Your task to perform on an android device: toggle data saver in the chrome app Image 0: 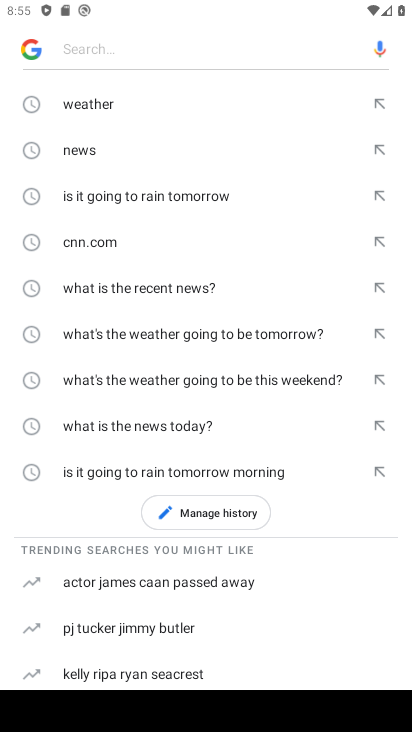
Step 0: press home button
Your task to perform on an android device: toggle data saver in the chrome app Image 1: 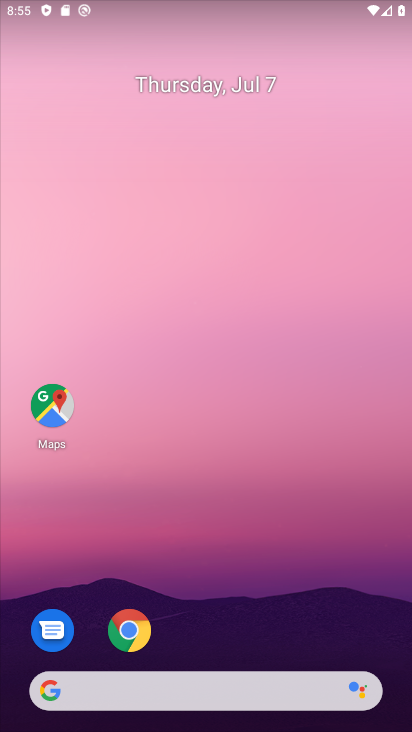
Step 1: click (132, 617)
Your task to perform on an android device: toggle data saver in the chrome app Image 2: 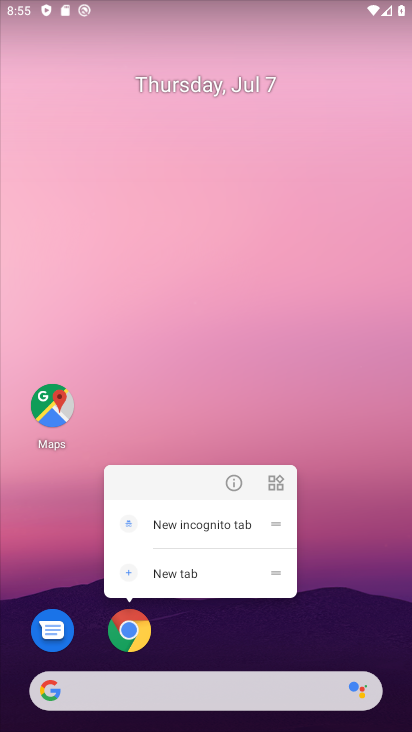
Step 2: click (131, 611)
Your task to perform on an android device: toggle data saver in the chrome app Image 3: 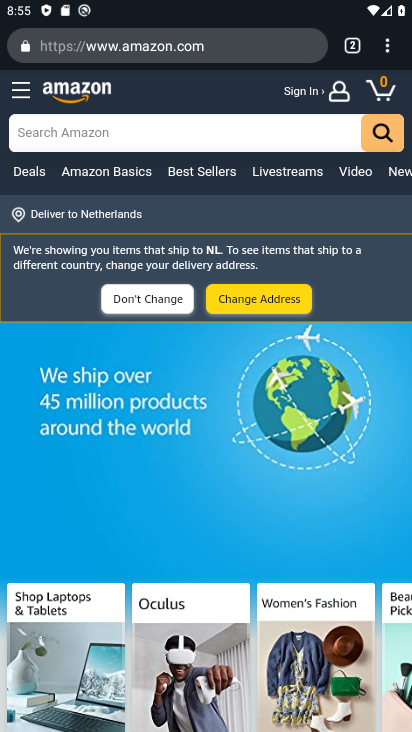
Step 3: click (385, 54)
Your task to perform on an android device: toggle data saver in the chrome app Image 4: 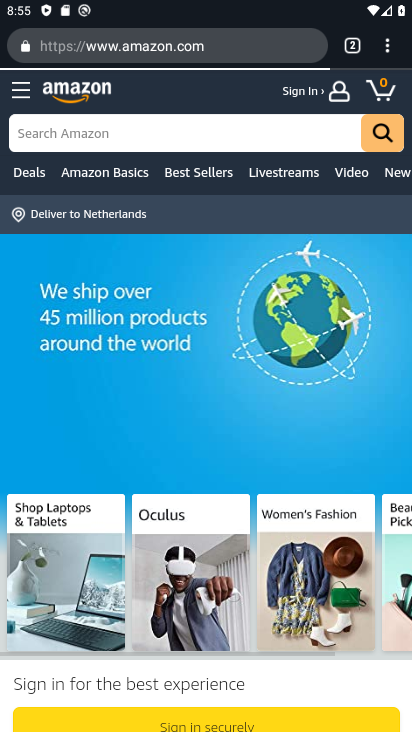
Step 4: drag from (385, 54) to (245, 596)
Your task to perform on an android device: toggle data saver in the chrome app Image 5: 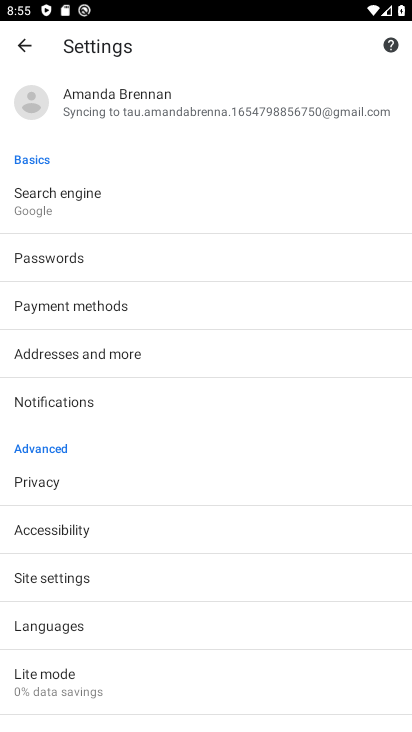
Step 5: click (81, 673)
Your task to perform on an android device: toggle data saver in the chrome app Image 6: 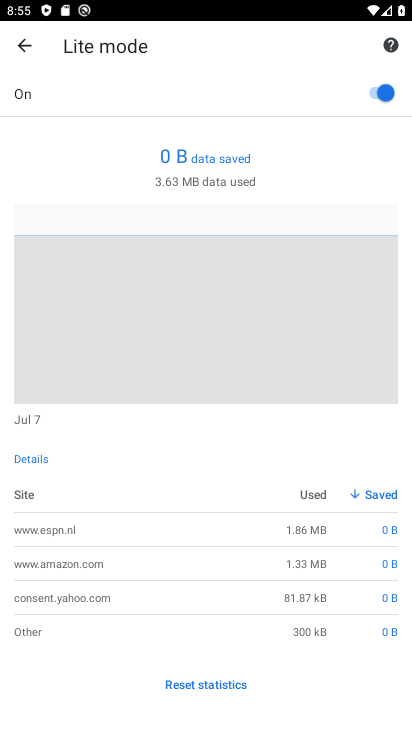
Step 6: click (369, 97)
Your task to perform on an android device: toggle data saver in the chrome app Image 7: 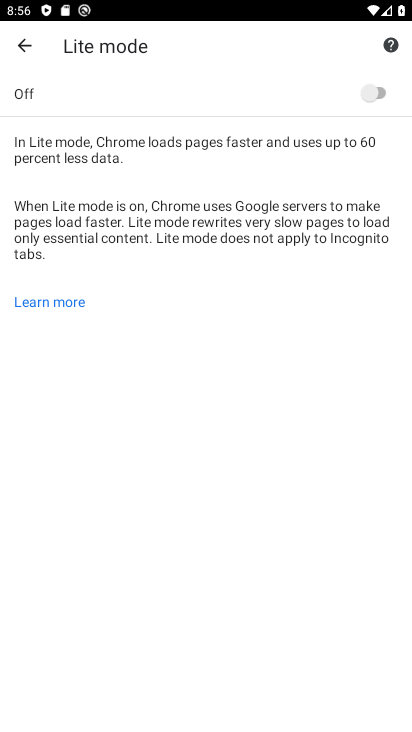
Step 7: task complete